Your task to perform on an android device: Clear the shopping cart on amazon.com. Search for "bose quietcomfort 35" on amazon.com, select the first entry, and add it to the cart. Image 0: 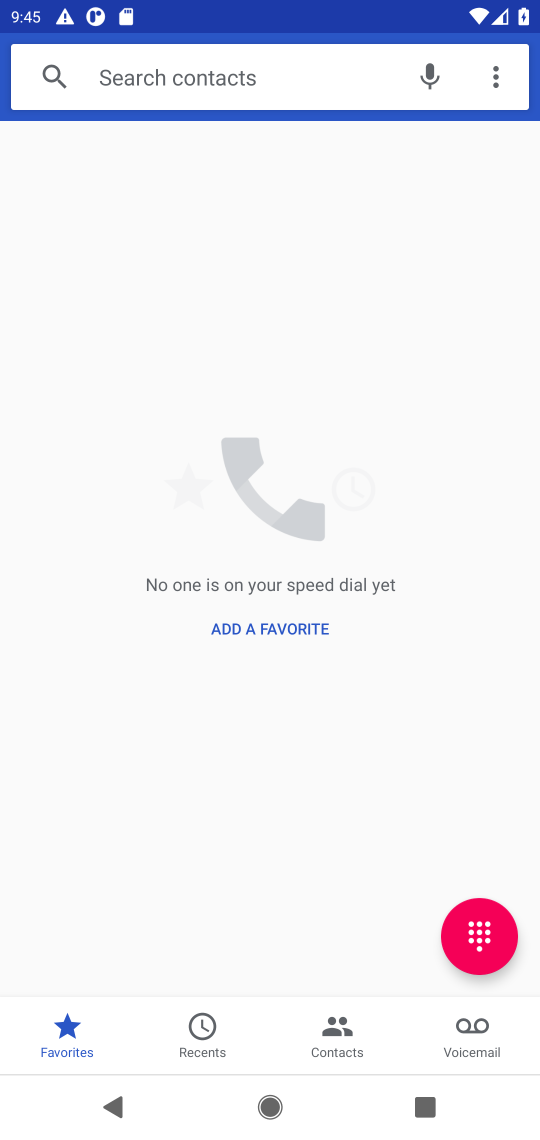
Step 0: press home button
Your task to perform on an android device: Clear the shopping cart on amazon.com. Search for "bose quietcomfort 35" on amazon.com, select the first entry, and add it to the cart. Image 1: 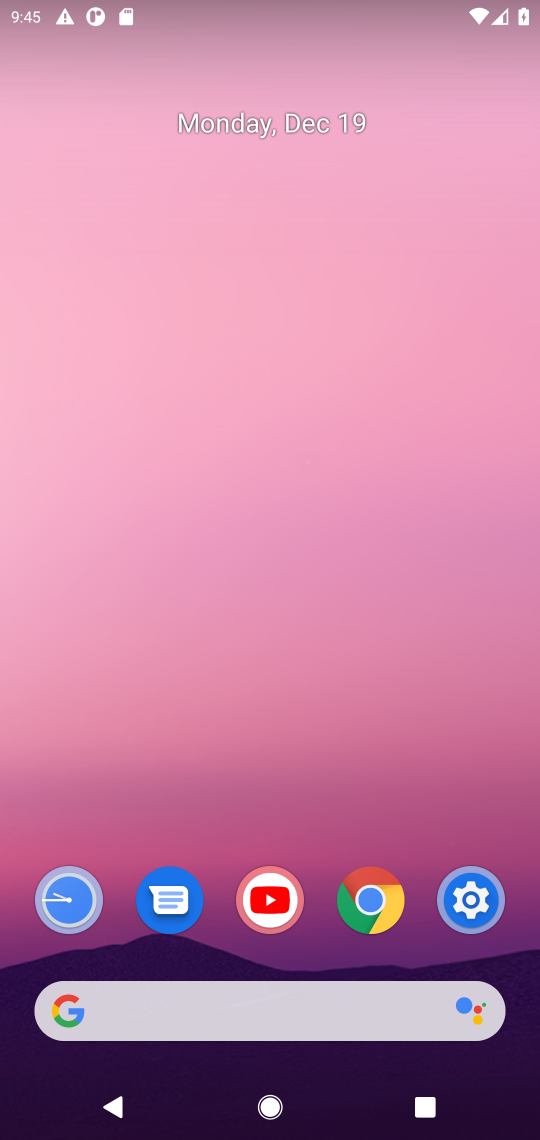
Step 1: click (361, 895)
Your task to perform on an android device: Clear the shopping cart on amazon.com. Search for "bose quietcomfort 35" on amazon.com, select the first entry, and add it to the cart. Image 2: 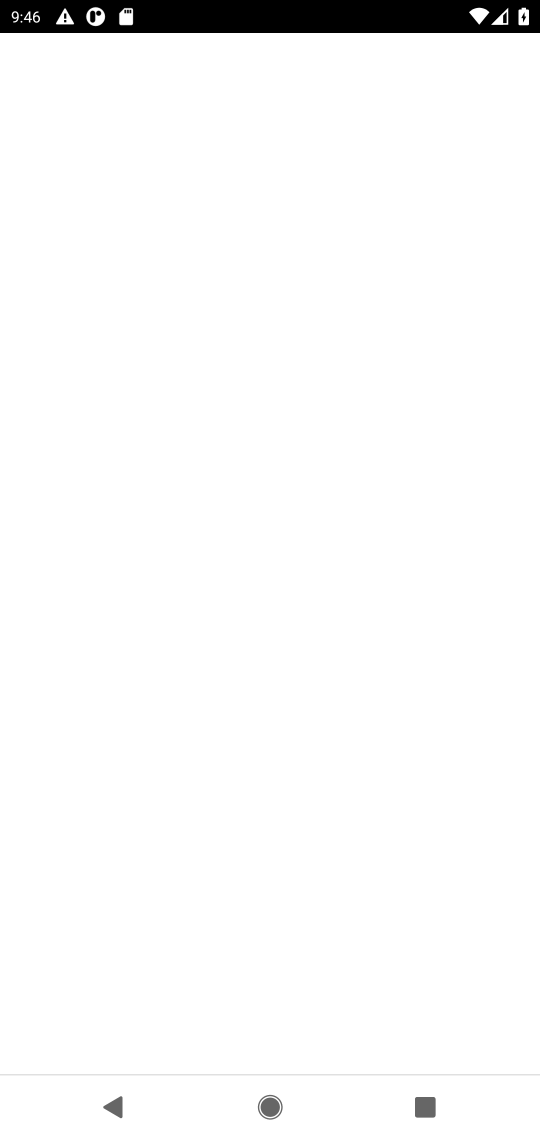
Step 2: task complete